Your task to perform on an android device: Open privacy settings Image 0: 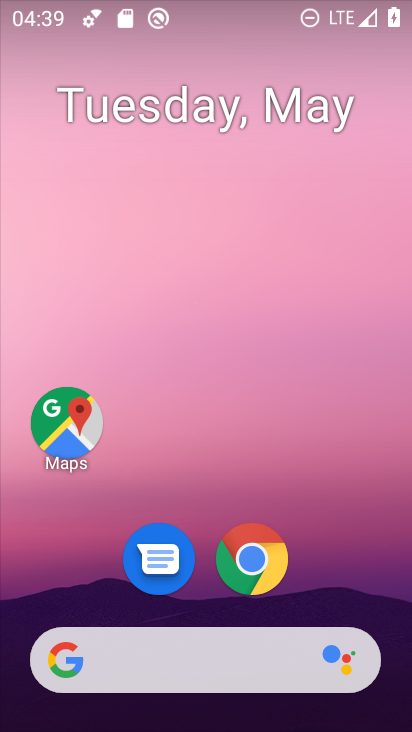
Step 0: drag from (246, 718) to (250, 192)
Your task to perform on an android device: Open privacy settings Image 1: 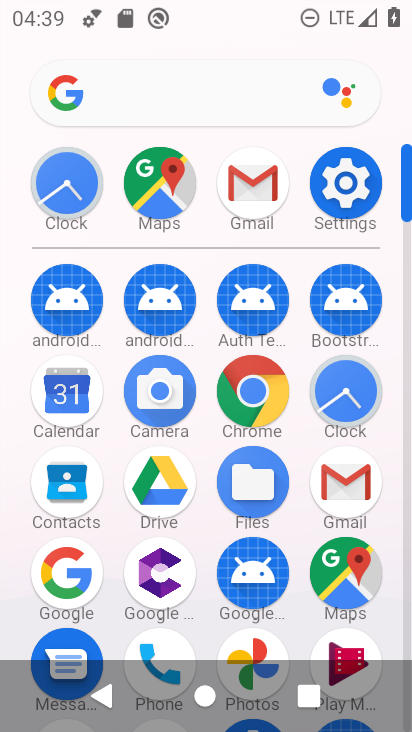
Step 1: click (348, 188)
Your task to perform on an android device: Open privacy settings Image 2: 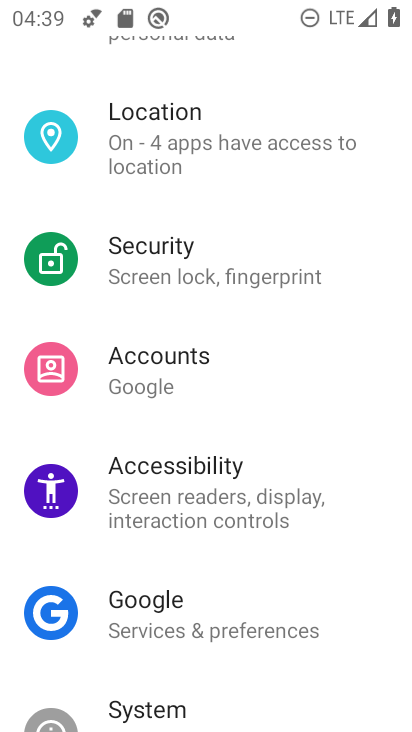
Step 2: drag from (228, 659) to (216, 263)
Your task to perform on an android device: Open privacy settings Image 3: 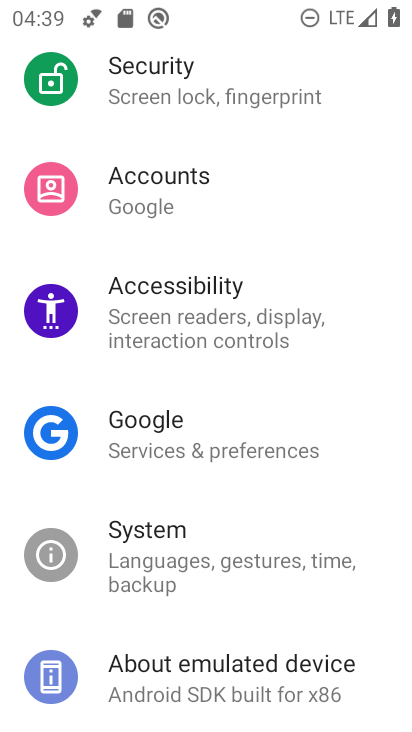
Step 3: drag from (348, 87) to (351, 610)
Your task to perform on an android device: Open privacy settings Image 4: 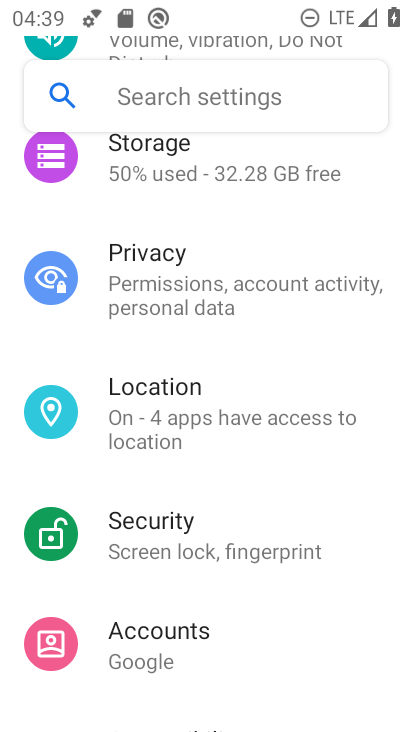
Step 4: click (144, 264)
Your task to perform on an android device: Open privacy settings Image 5: 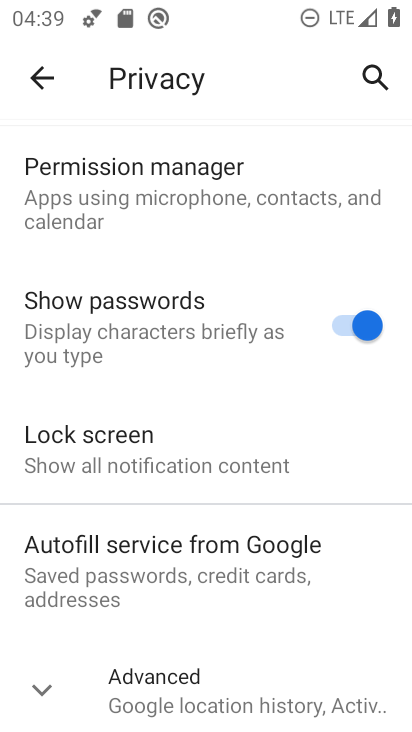
Step 5: task complete